Your task to perform on an android device: Show me productivity apps on the Play Store Image 0: 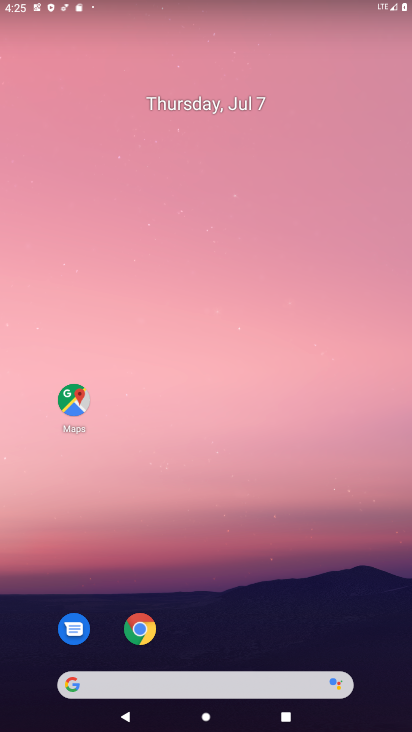
Step 0: drag from (221, 610) to (242, 288)
Your task to perform on an android device: Show me productivity apps on the Play Store Image 1: 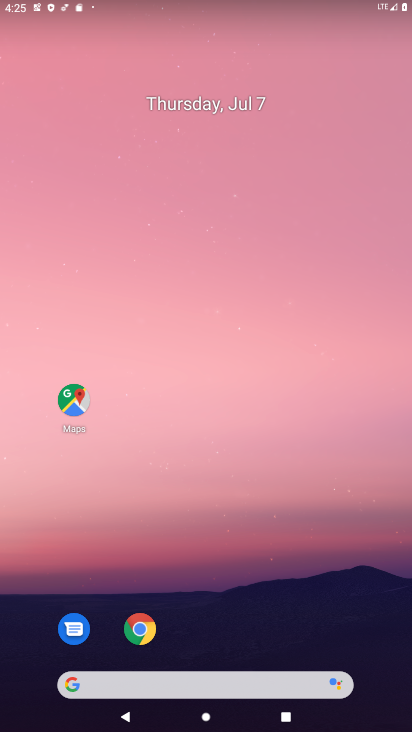
Step 1: drag from (231, 602) to (265, 242)
Your task to perform on an android device: Show me productivity apps on the Play Store Image 2: 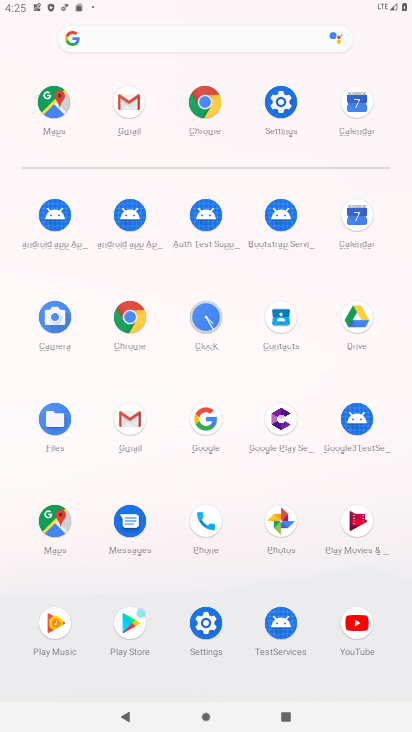
Step 2: click (132, 614)
Your task to perform on an android device: Show me productivity apps on the Play Store Image 3: 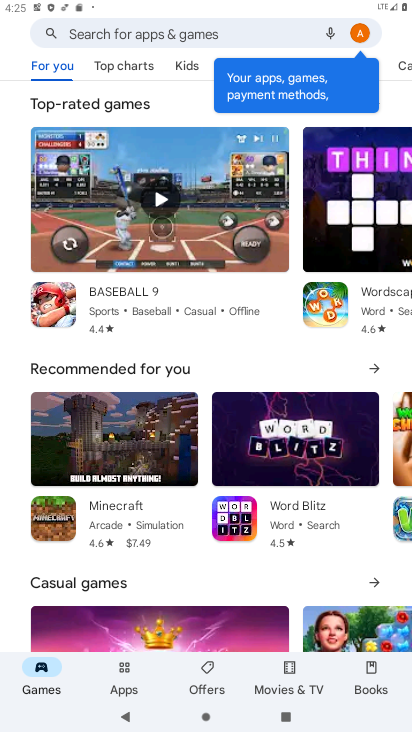
Step 3: click (122, 673)
Your task to perform on an android device: Show me productivity apps on the Play Store Image 4: 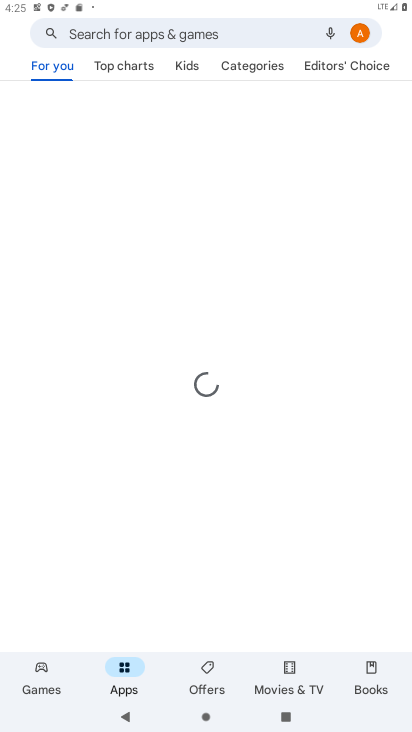
Step 4: click (122, 667)
Your task to perform on an android device: Show me productivity apps on the Play Store Image 5: 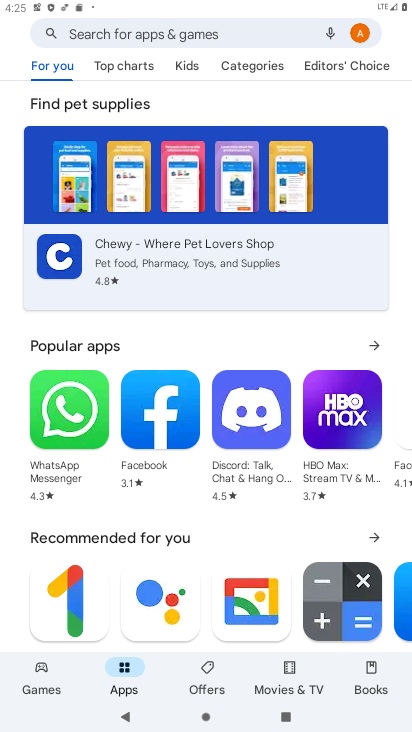
Step 5: task complete